Your task to perform on an android device: toggle airplane mode Image 0: 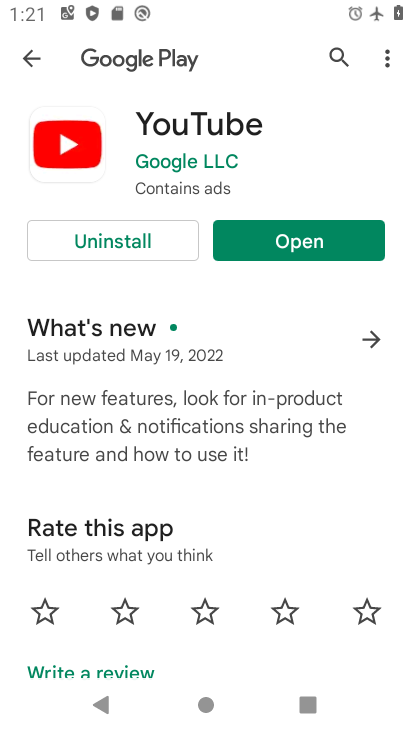
Step 0: press home button
Your task to perform on an android device: toggle airplane mode Image 1: 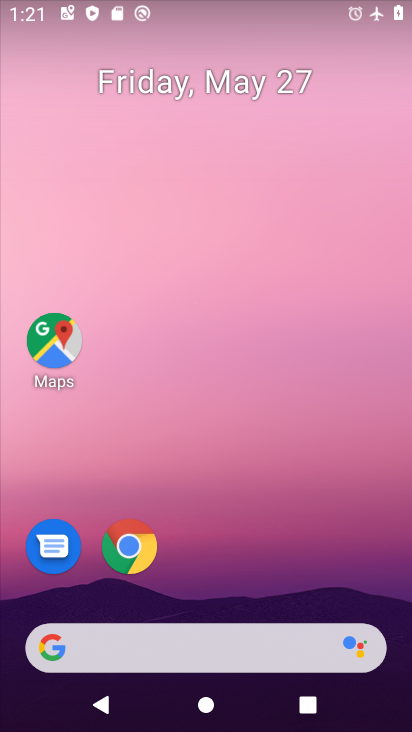
Step 1: drag from (232, 664) to (257, 141)
Your task to perform on an android device: toggle airplane mode Image 2: 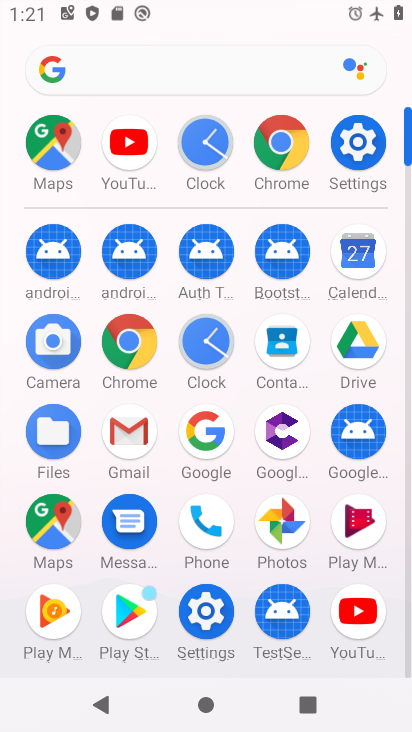
Step 2: click (375, 137)
Your task to perform on an android device: toggle airplane mode Image 3: 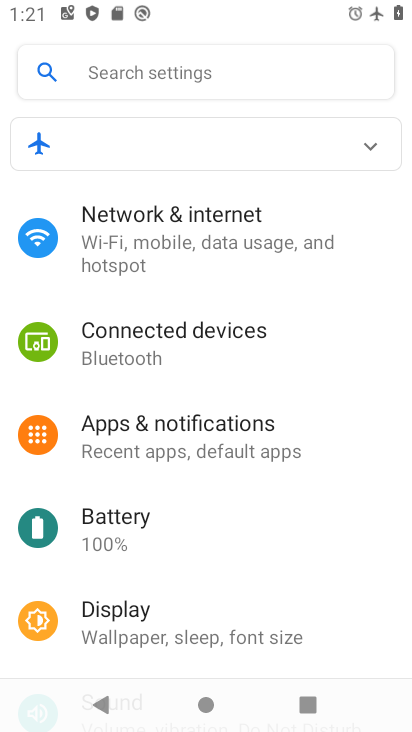
Step 3: click (376, 150)
Your task to perform on an android device: toggle airplane mode Image 4: 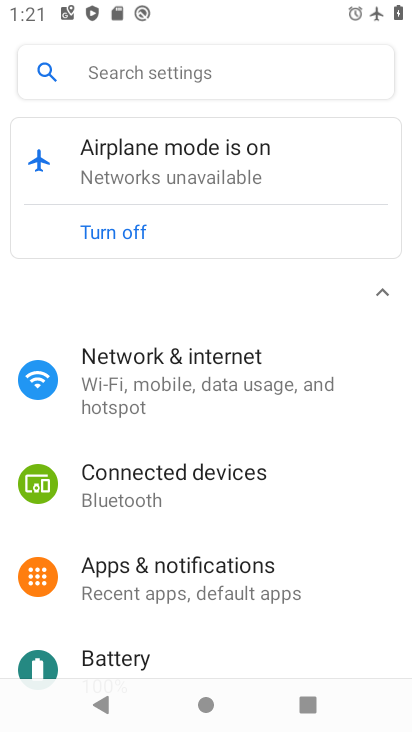
Step 4: click (211, 381)
Your task to perform on an android device: toggle airplane mode Image 5: 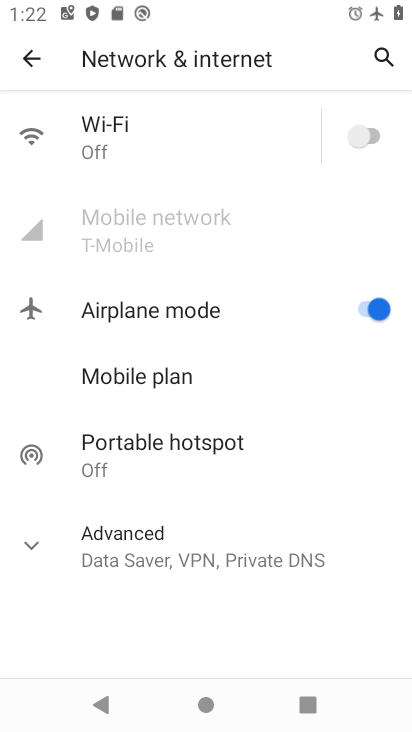
Step 5: click (357, 308)
Your task to perform on an android device: toggle airplane mode Image 6: 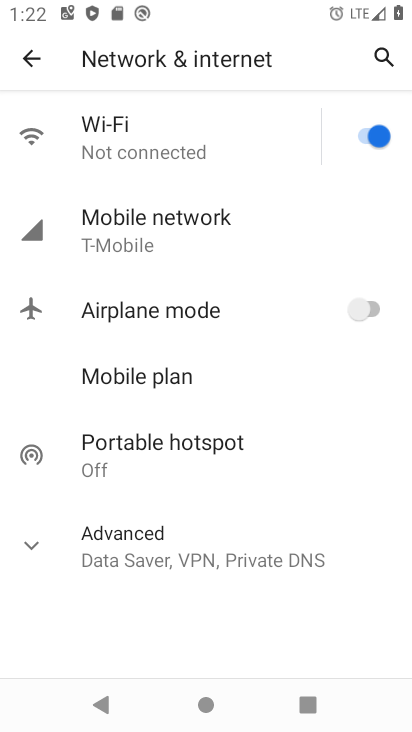
Step 6: task complete